Your task to perform on an android device: visit the assistant section in the google photos Image 0: 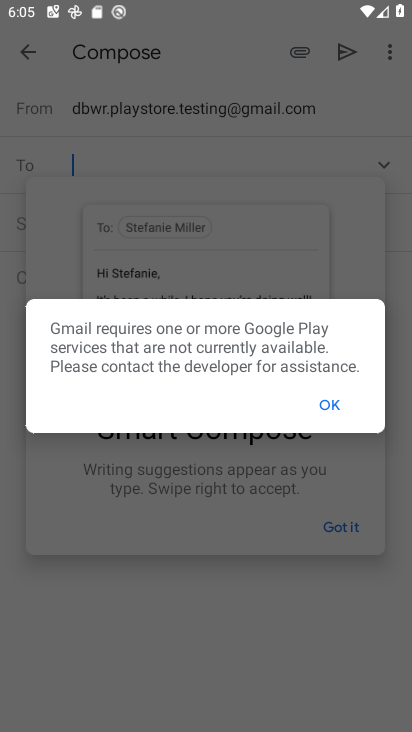
Step 0: press home button
Your task to perform on an android device: visit the assistant section in the google photos Image 1: 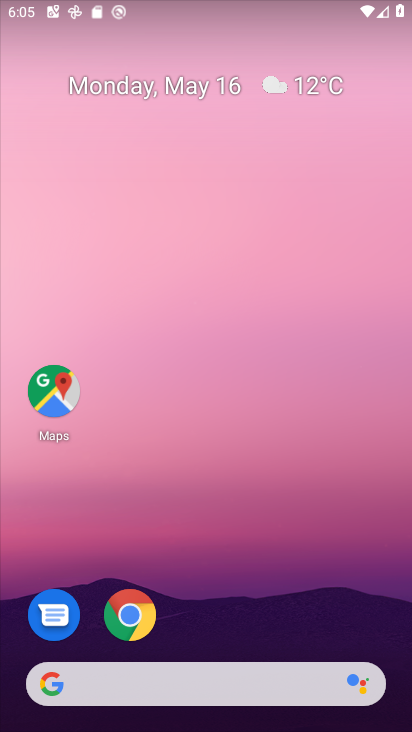
Step 1: drag from (209, 595) to (220, 131)
Your task to perform on an android device: visit the assistant section in the google photos Image 2: 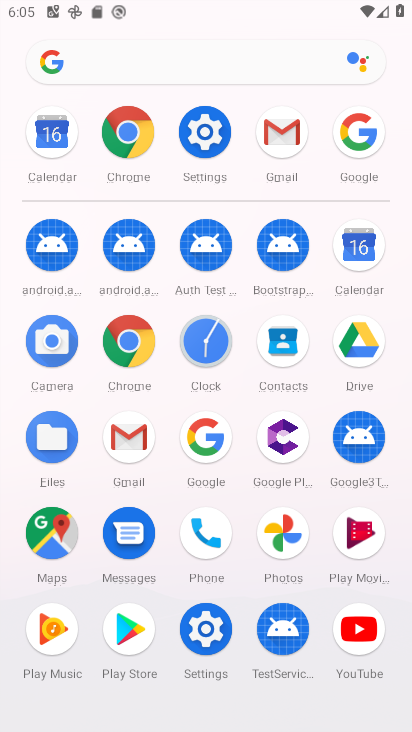
Step 2: click (273, 544)
Your task to perform on an android device: visit the assistant section in the google photos Image 3: 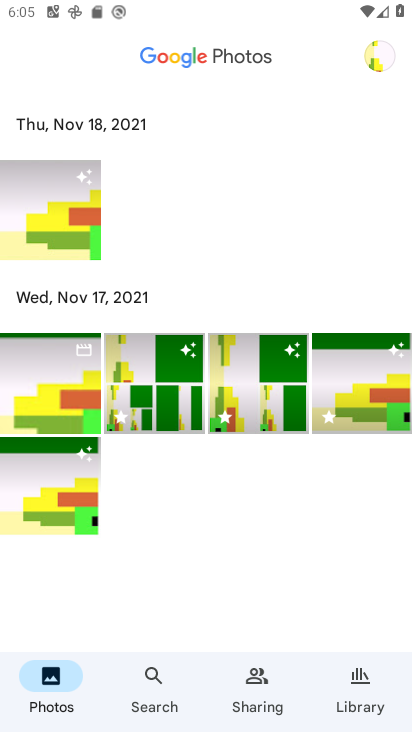
Step 3: click (387, 57)
Your task to perform on an android device: visit the assistant section in the google photos Image 4: 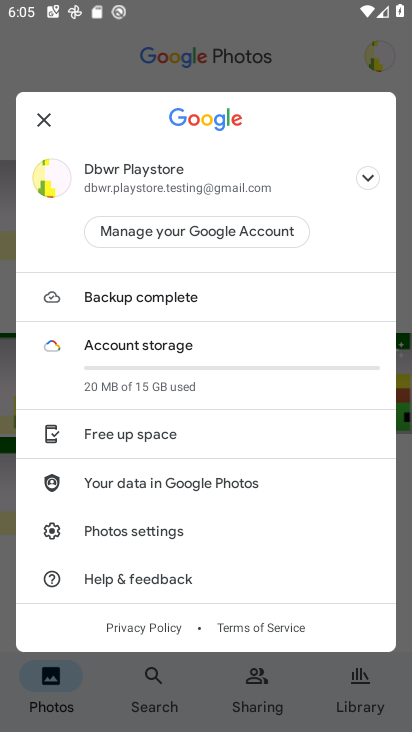
Step 4: task complete